Your task to perform on an android device: Open Reddit.com Image 0: 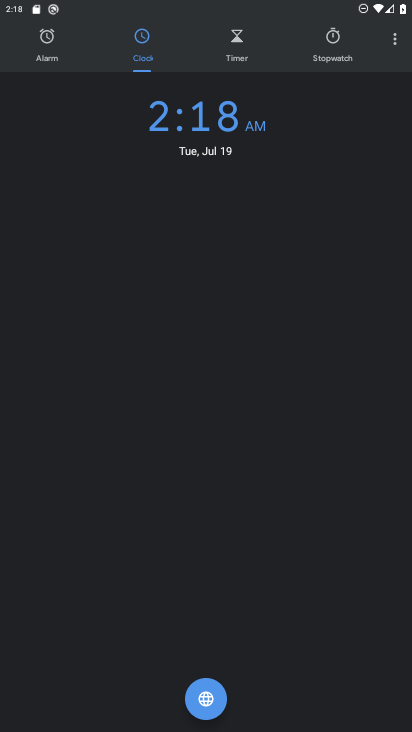
Step 0: drag from (394, 691) to (301, 51)
Your task to perform on an android device: Open Reddit.com Image 1: 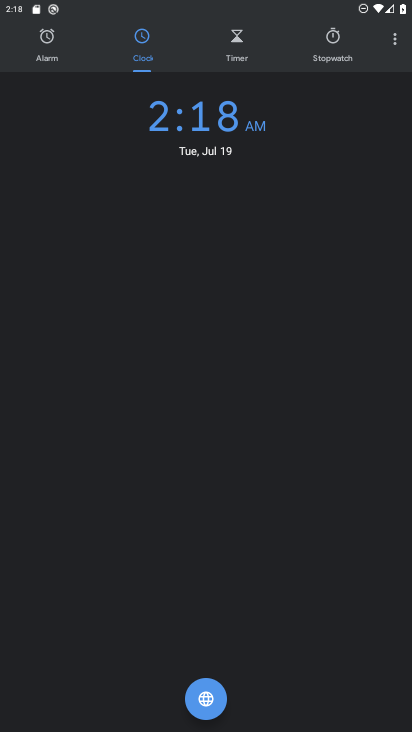
Step 1: press home button
Your task to perform on an android device: Open Reddit.com Image 2: 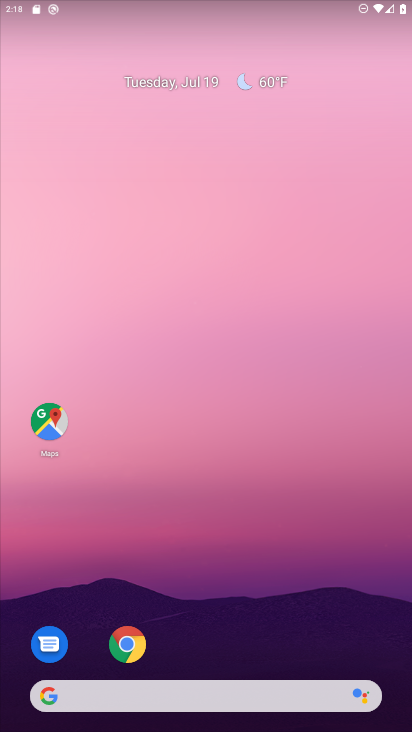
Step 2: click (123, 635)
Your task to perform on an android device: Open Reddit.com Image 3: 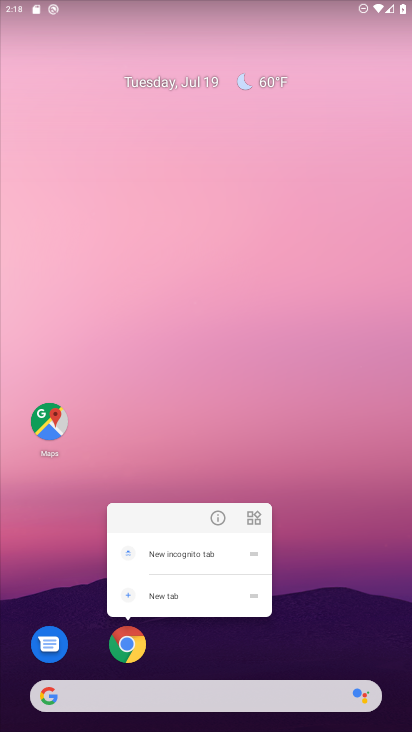
Step 3: click (124, 640)
Your task to perform on an android device: Open Reddit.com Image 4: 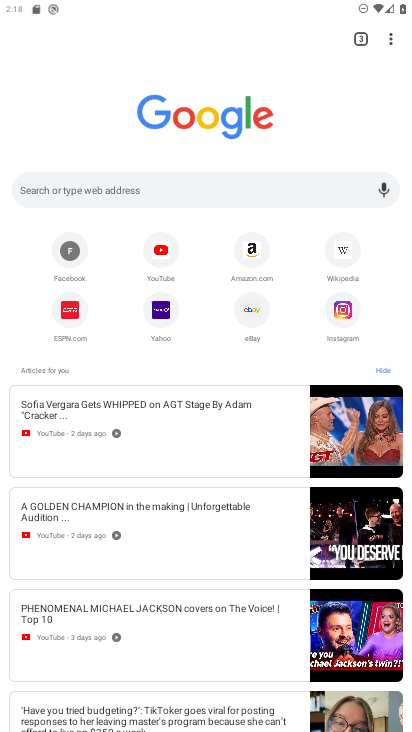
Step 4: click (185, 184)
Your task to perform on an android device: Open Reddit.com Image 5: 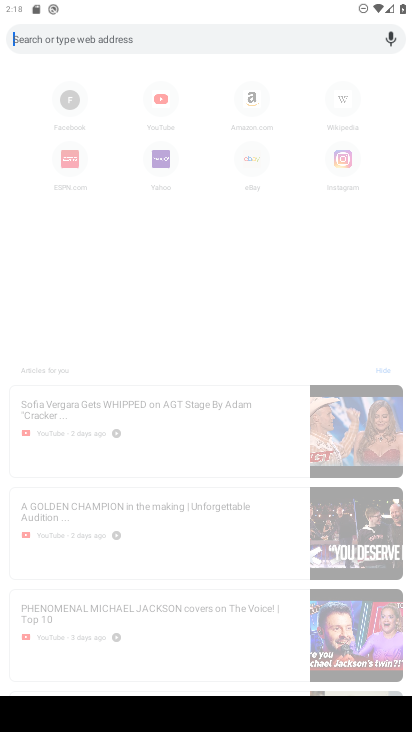
Step 5: type "Reddit.com"
Your task to perform on an android device: Open Reddit.com Image 6: 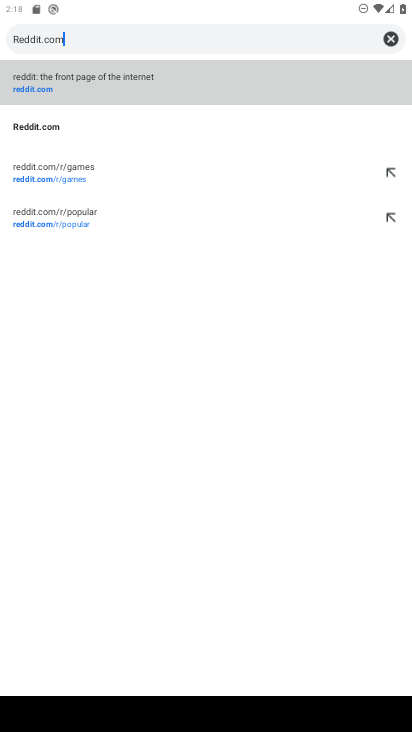
Step 6: click (16, 124)
Your task to perform on an android device: Open Reddit.com Image 7: 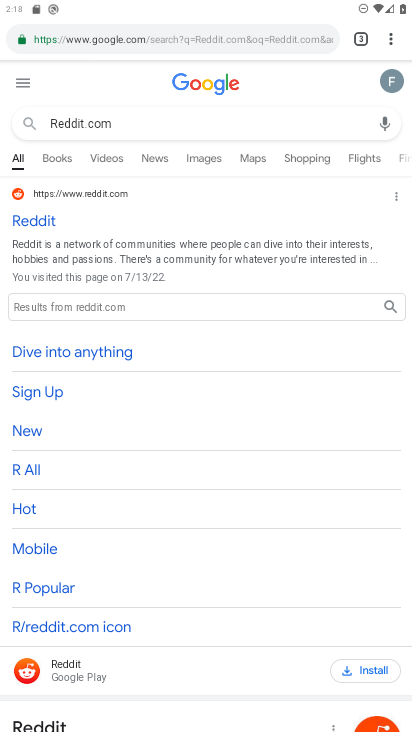
Step 7: task complete